Your task to perform on an android device: Open the web browser Image 0: 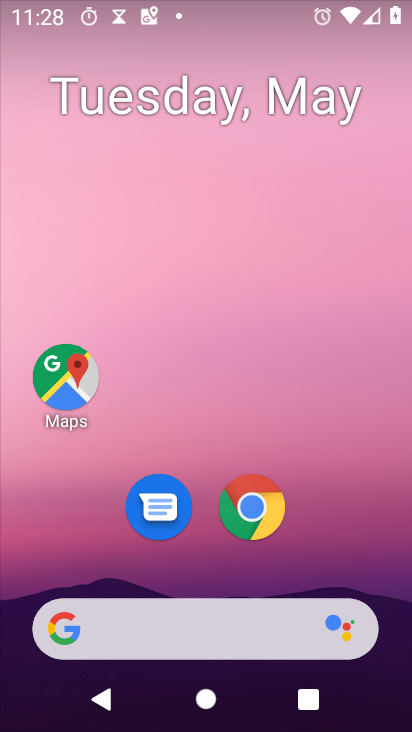
Step 0: drag from (37, 731) to (209, 94)
Your task to perform on an android device: Open the web browser Image 1: 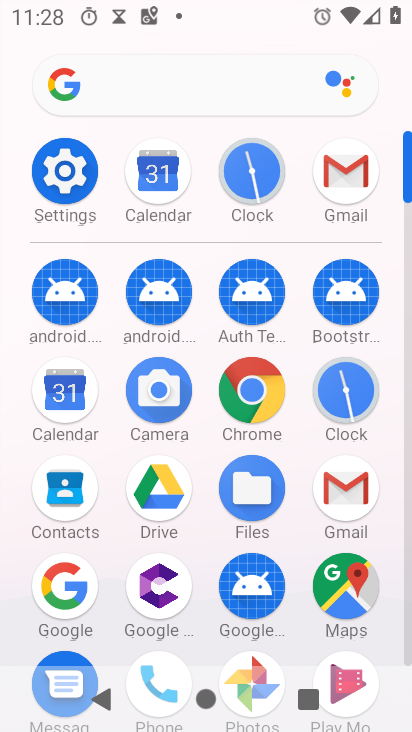
Step 1: click (253, 405)
Your task to perform on an android device: Open the web browser Image 2: 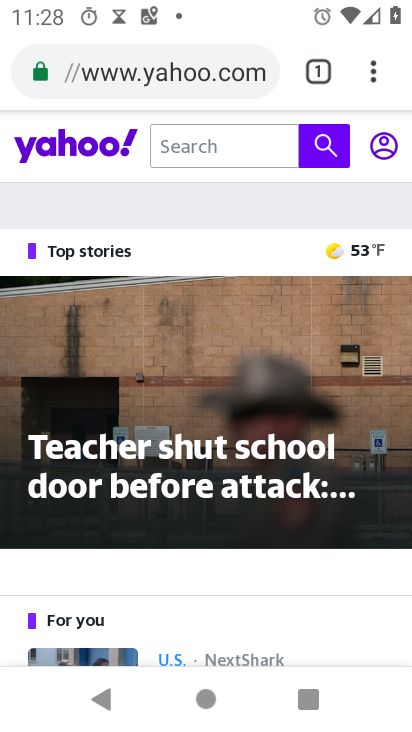
Step 2: task complete